Your task to perform on an android device: Clear the shopping cart on target.com. Search for "logitech g pro" on target.com, select the first entry, add it to the cart, then select checkout. Image 0: 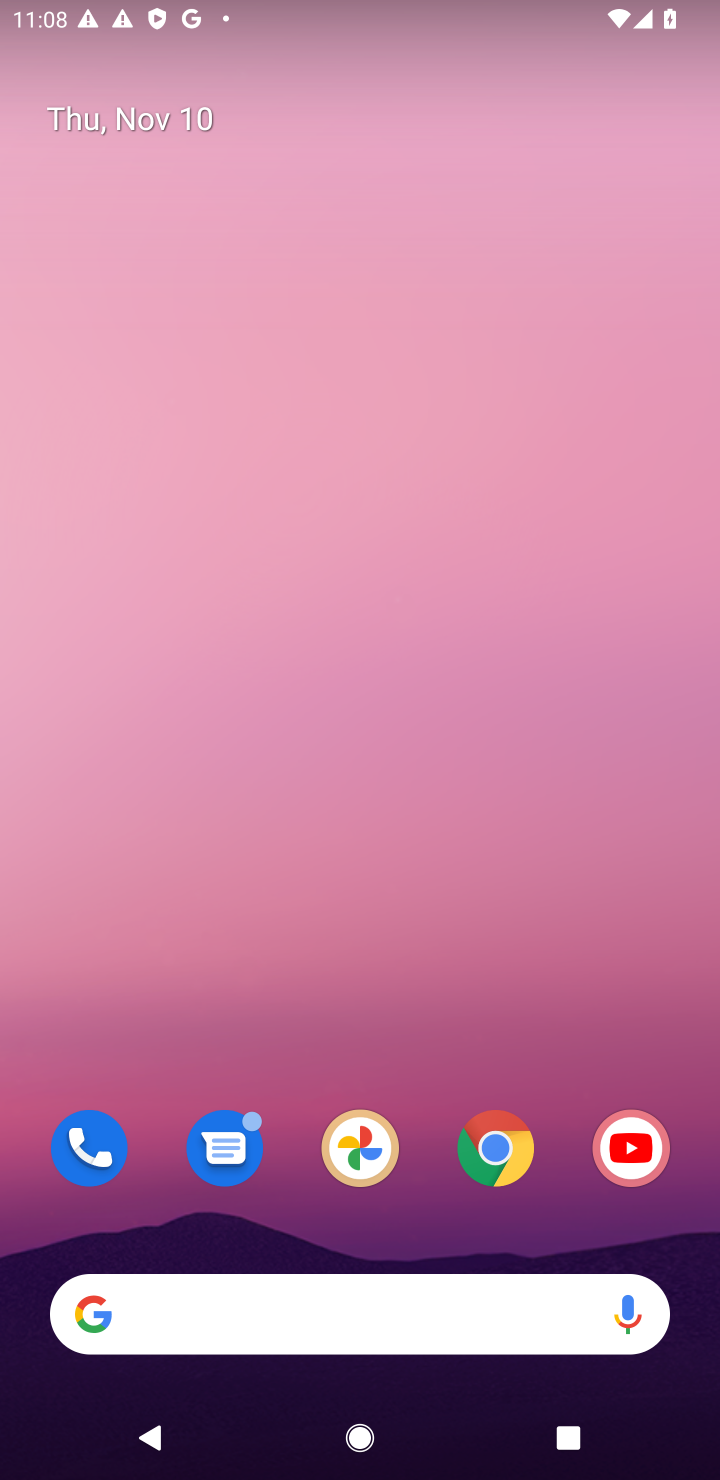
Step 0: click (496, 1156)
Your task to perform on an android device: Clear the shopping cart on target.com. Search for "logitech g pro" on target.com, select the first entry, add it to the cart, then select checkout. Image 1: 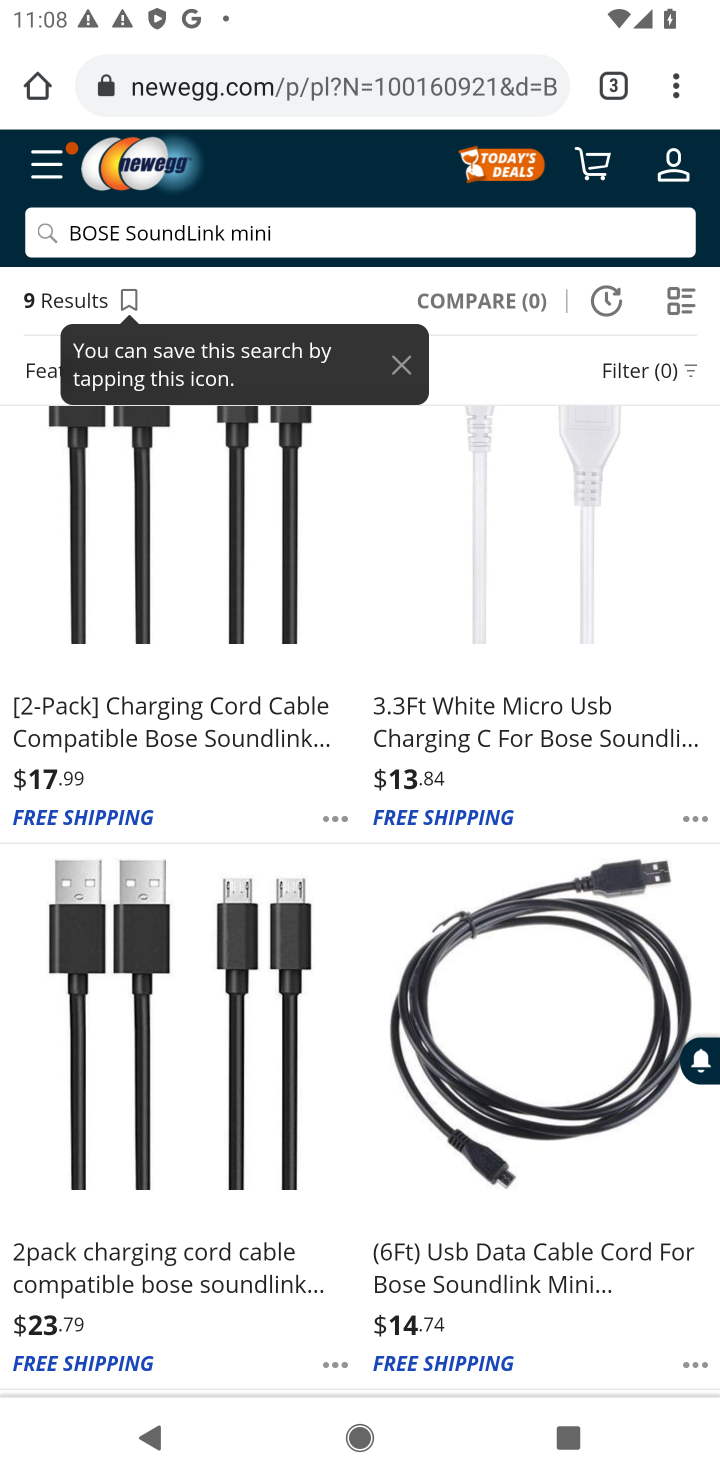
Step 1: click (622, 77)
Your task to perform on an android device: Clear the shopping cart on target.com. Search for "logitech g pro" on target.com, select the first entry, add it to the cart, then select checkout. Image 2: 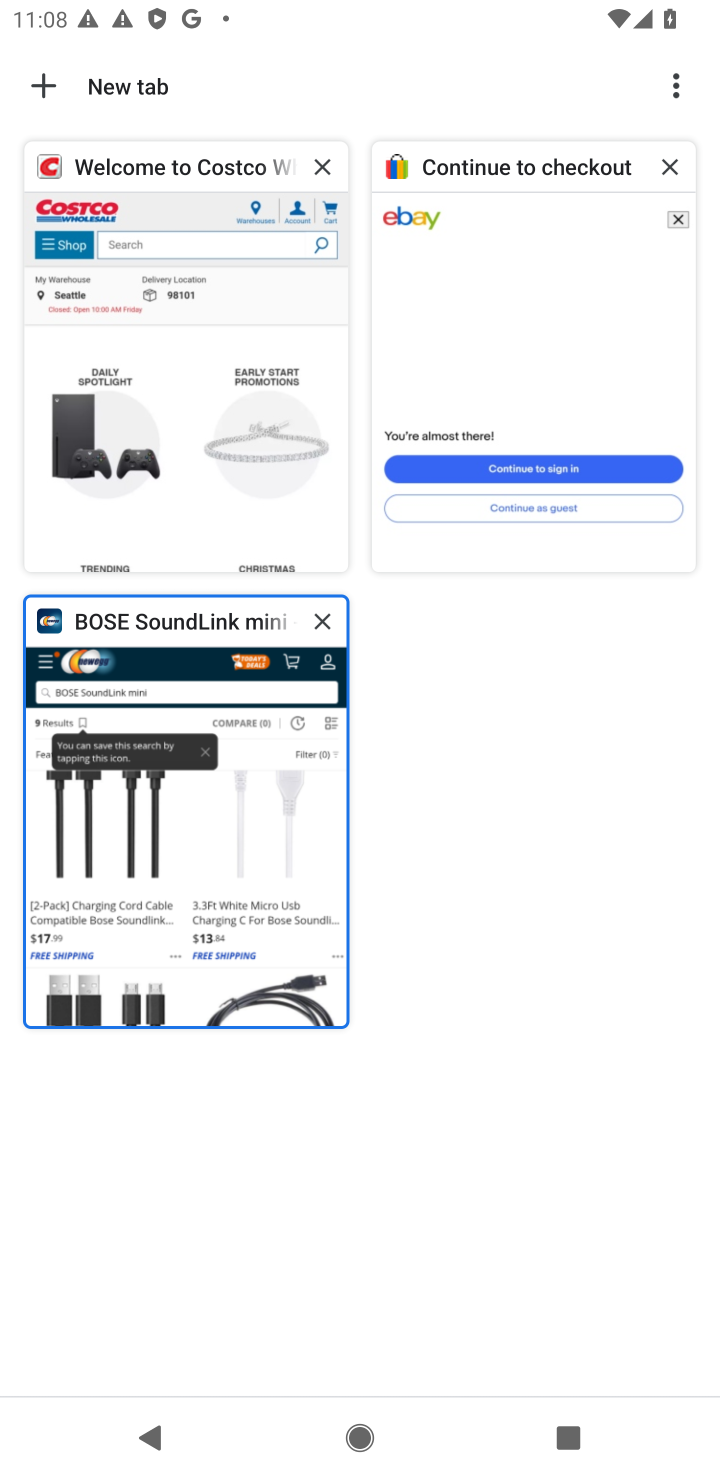
Step 2: click (37, 80)
Your task to perform on an android device: Clear the shopping cart on target.com. Search for "logitech g pro" on target.com, select the first entry, add it to the cart, then select checkout. Image 3: 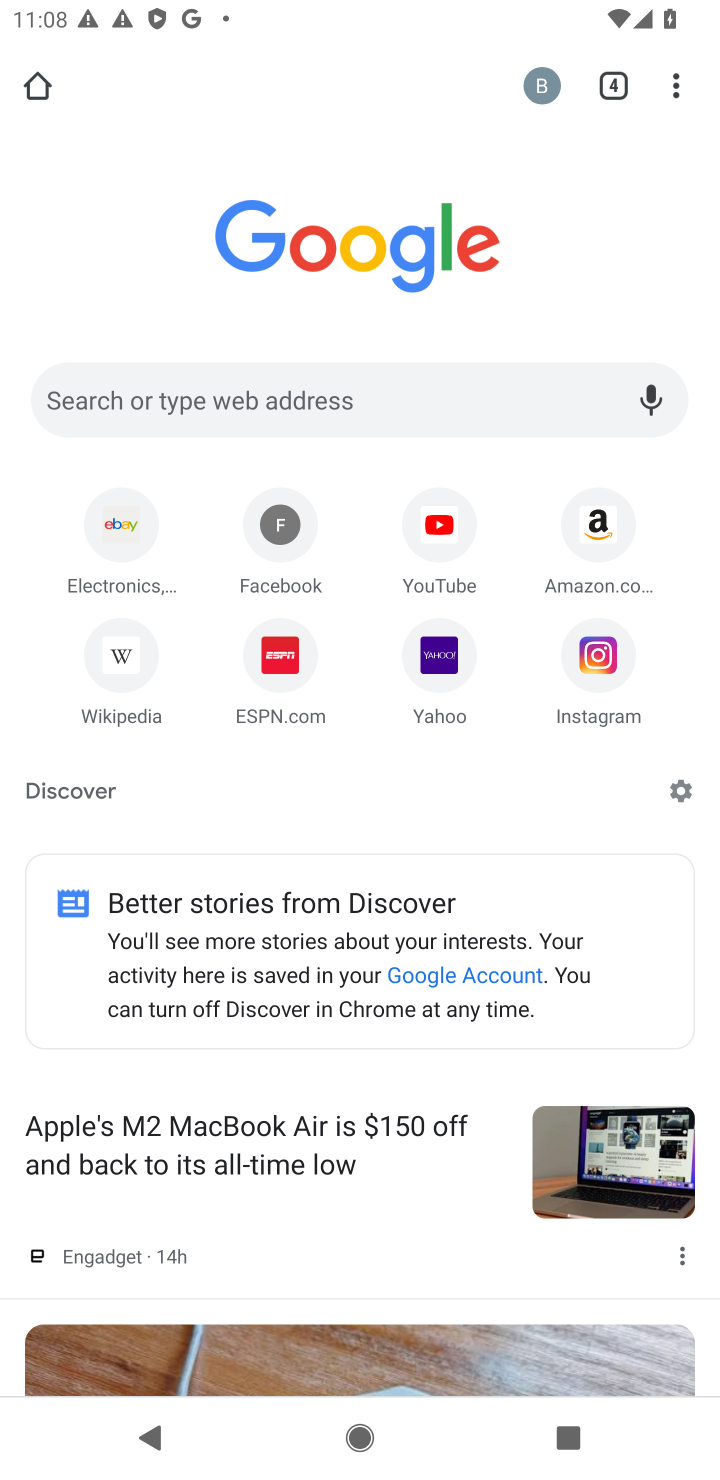
Step 3: click (320, 409)
Your task to perform on an android device: Clear the shopping cart on target.com. Search for "logitech g pro" on target.com, select the first entry, add it to the cart, then select checkout. Image 4: 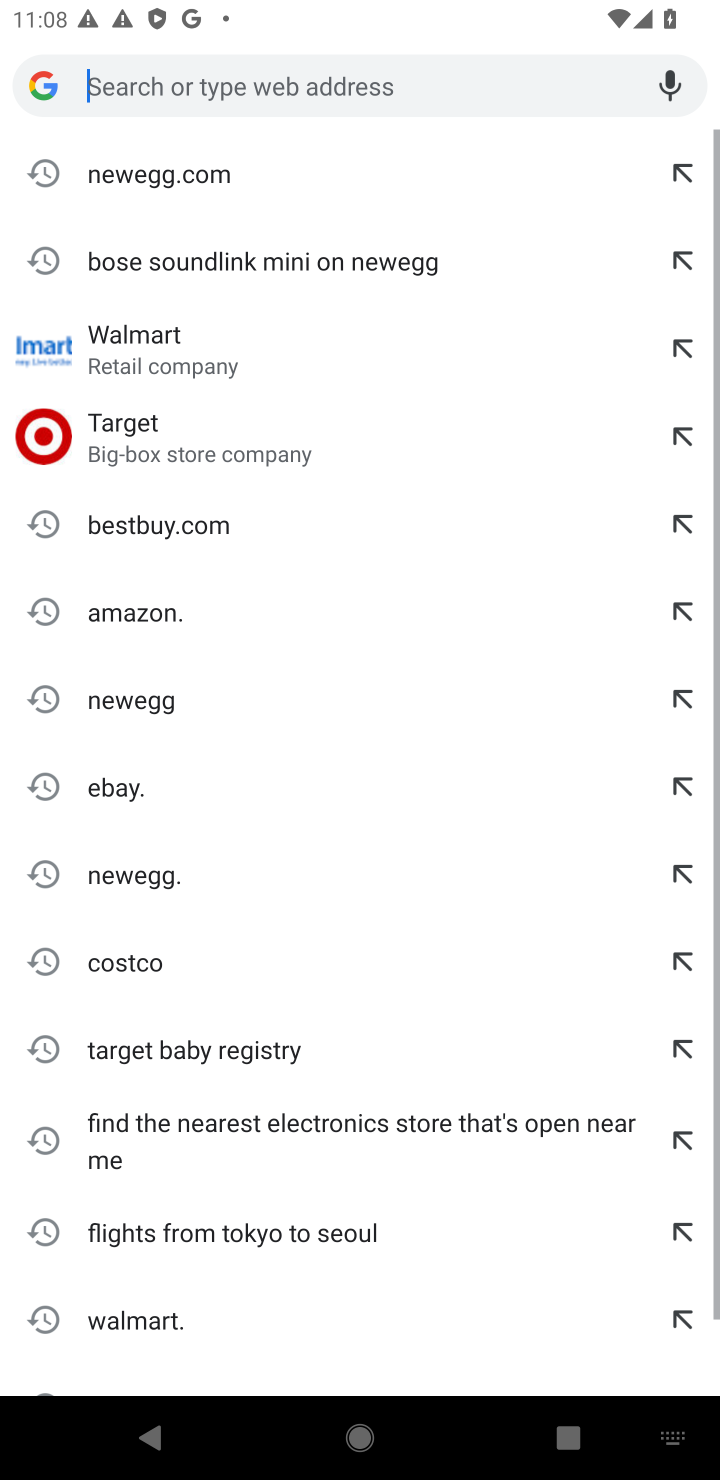
Step 4: click (96, 423)
Your task to perform on an android device: Clear the shopping cart on target.com. Search for "logitech g pro" on target.com, select the first entry, add it to the cart, then select checkout. Image 5: 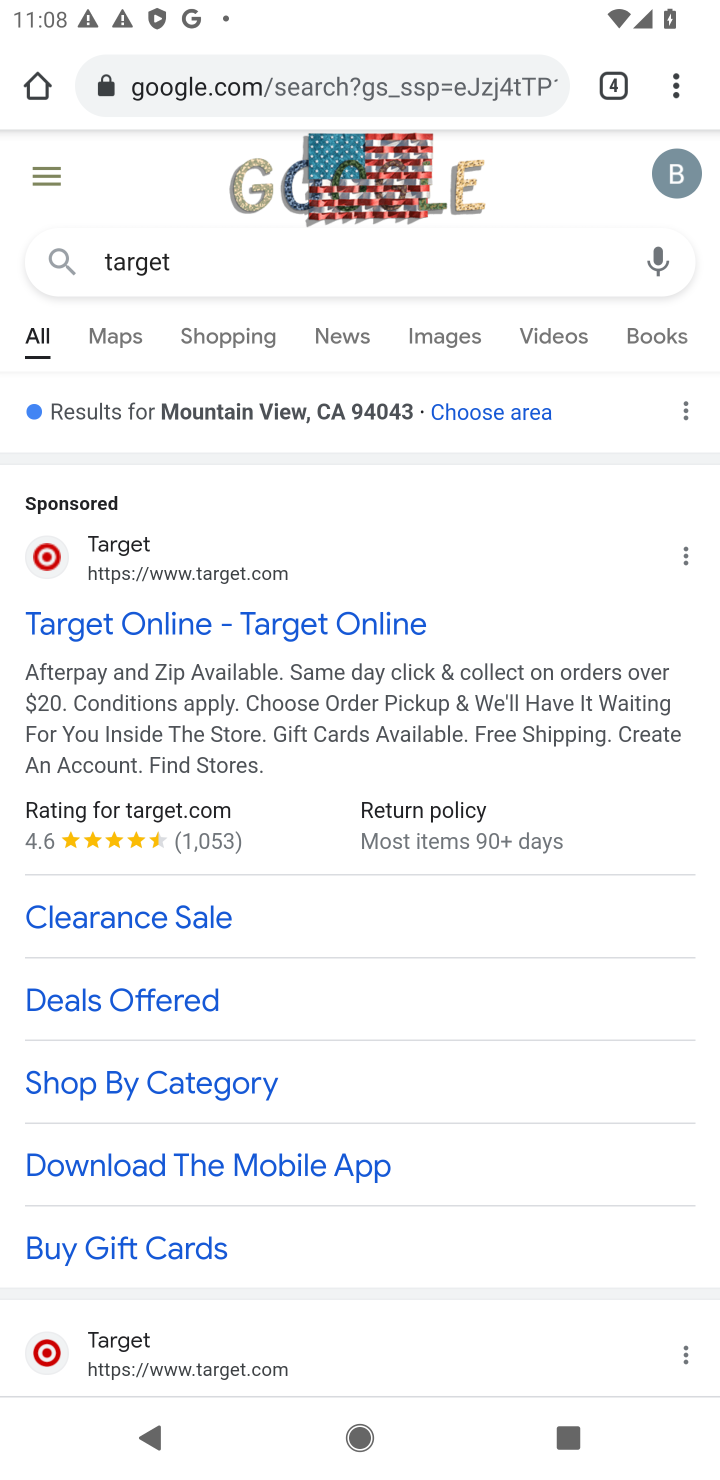
Step 5: click (242, 621)
Your task to perform on an android device: Clear the shopping cart on target.com. Search for "logitech g pro" on target.com, select the first entry, add it to the cart, then select checkout. Image 6: 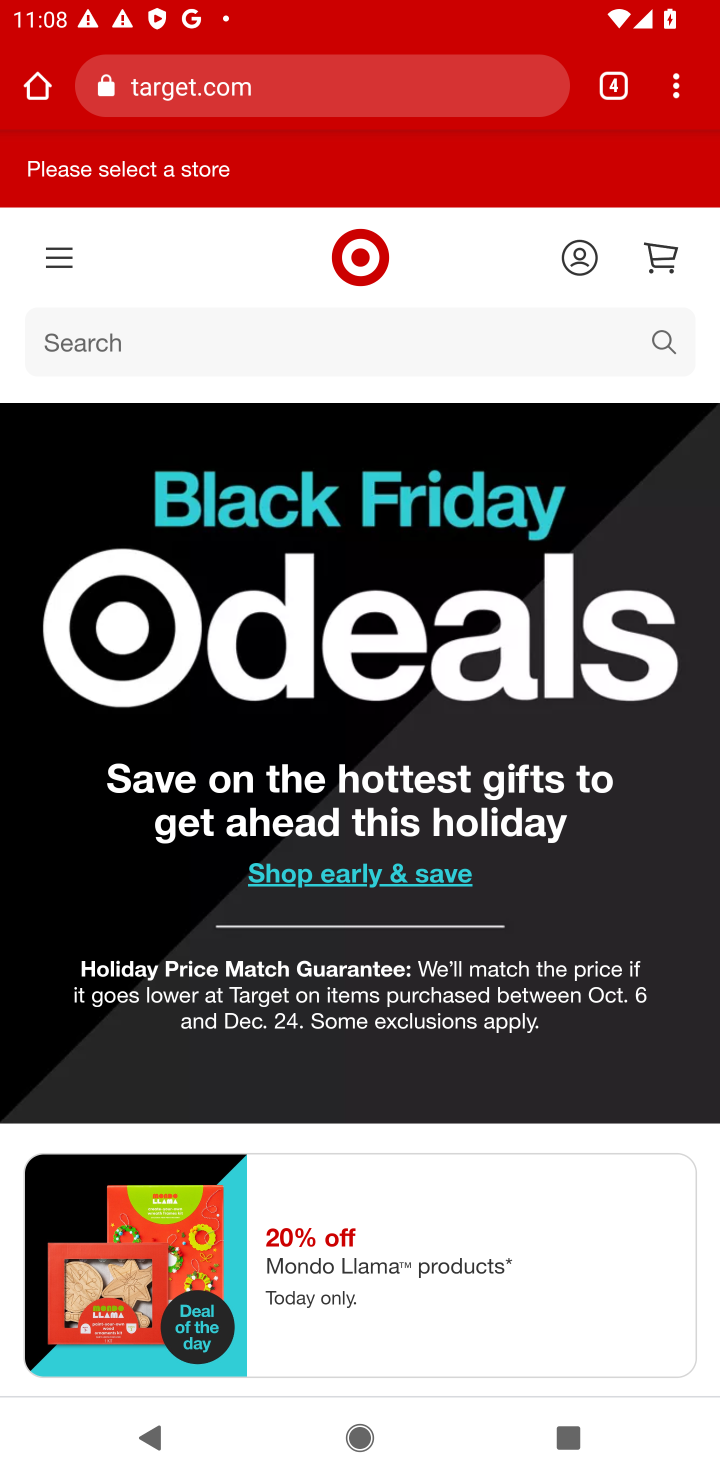
Step 6: click (94, 349)
Your task to perform on an android device: Clear the shopping cart on target.com. Search for "logitech g pro" on target.com, select the first entry, add it to the cart, then select checkout. Image 7: 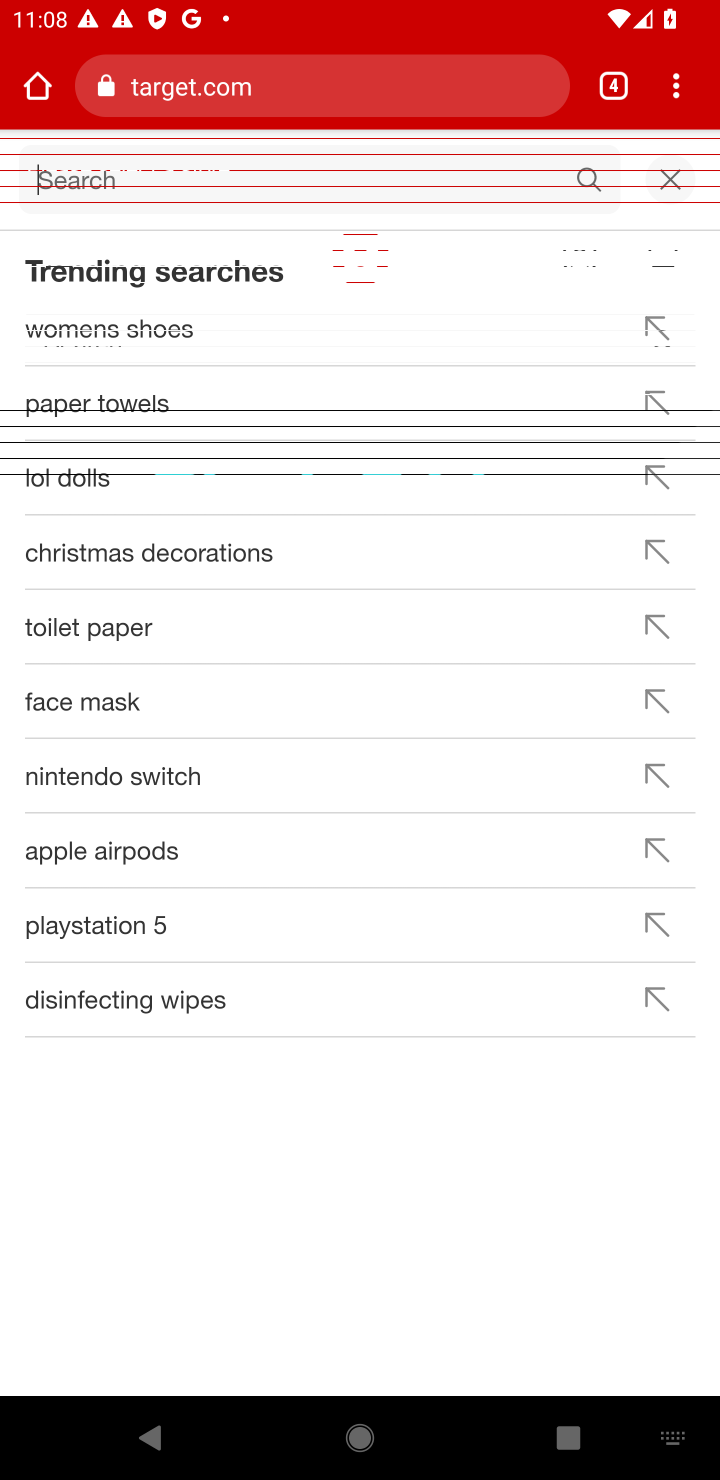
Step 7: type "logitech g pro"
Your task to perform on an android device: Clear the shopping cart on target.com. Search for "logitech g pro" on target.com, select the first entry, add it to the cart, then select checkout. Image 8: 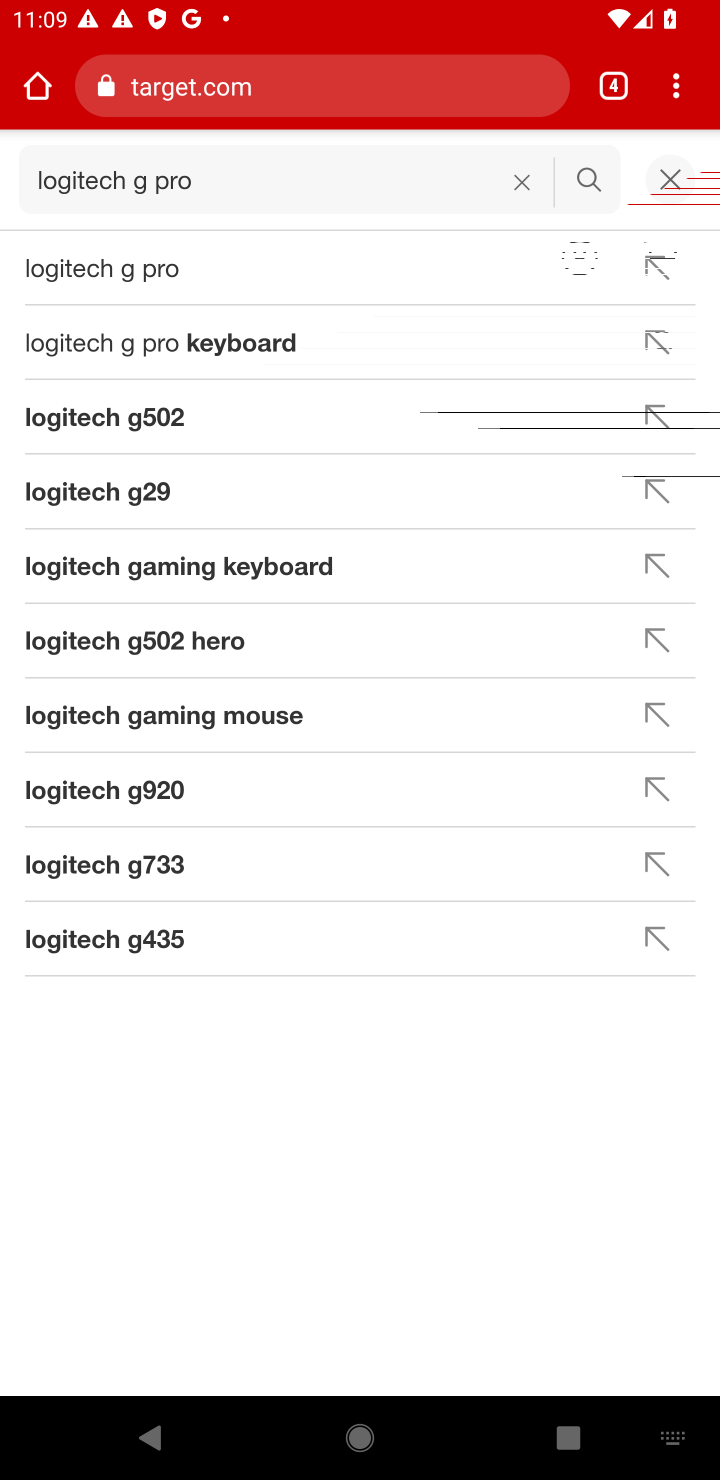
Step 8: click (167, 267)
Your task to perform on an android device: Clear the shopping cart on target.com. Search for "logitech g pro" on target.com, select the first entry, add it to the cart, then select checkout. Image 9: 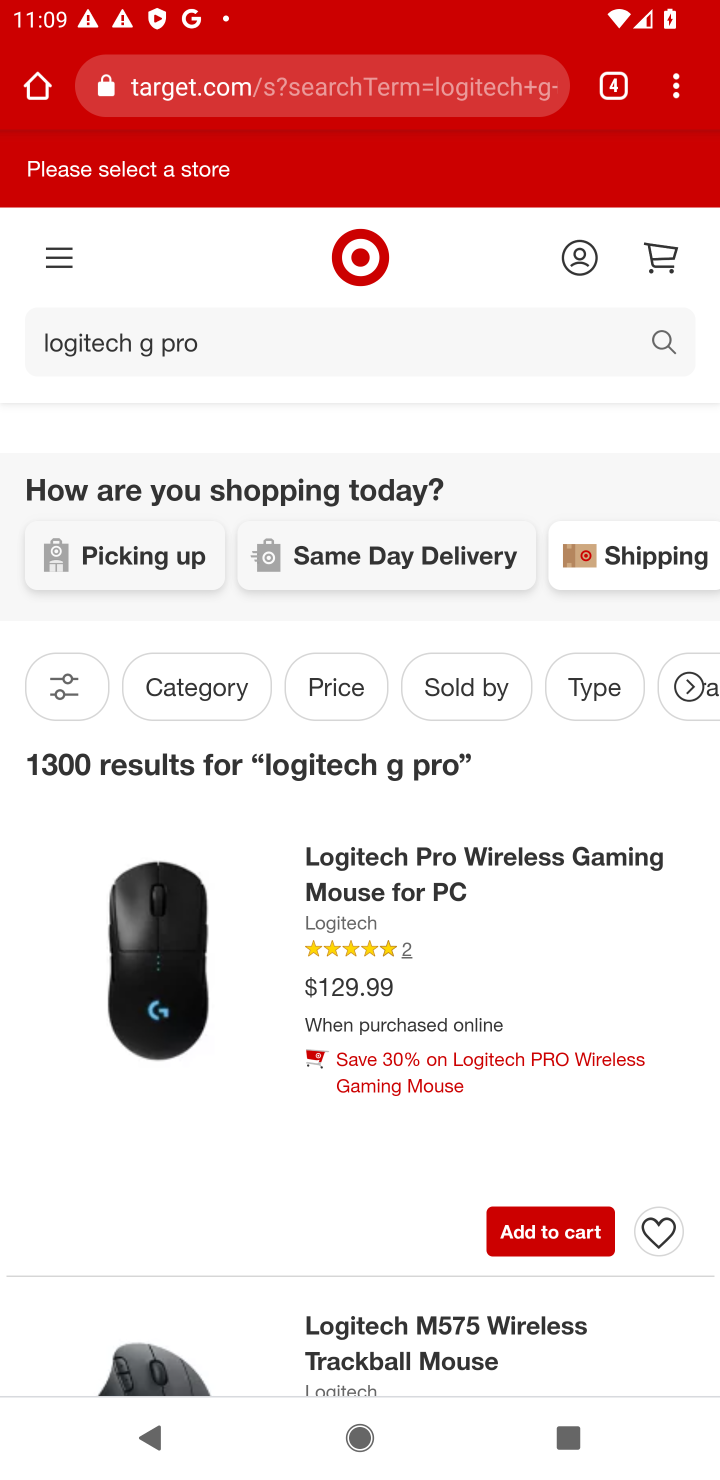
Step 9: click (574, 1226)
Your task to perform on an android device: Clear the shopping cart on target.com. Search for "logitech g pro" on target.com, select the first entry, add it to the cart, then select checkout. Image 10: 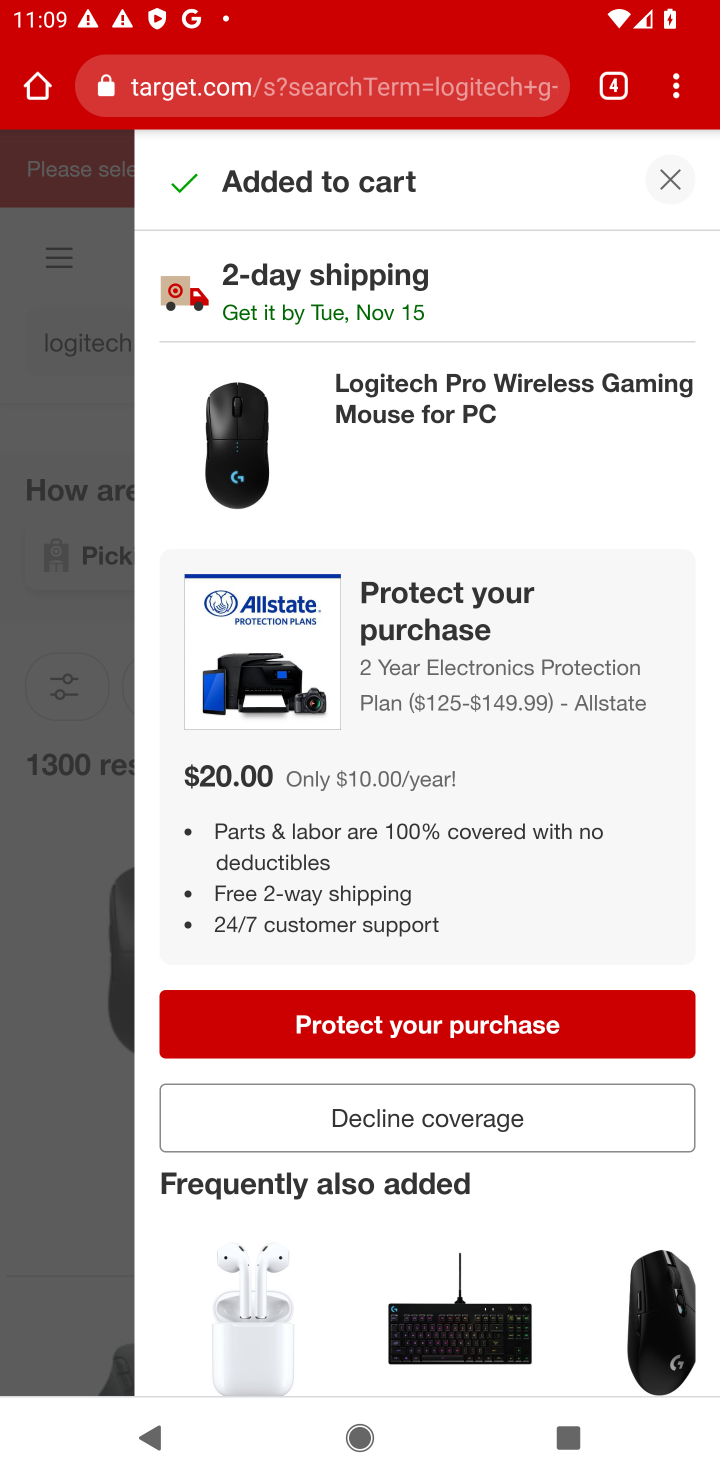
Step 10: task complete